Your task to perform on an android device: Go to sound settings Image 0: 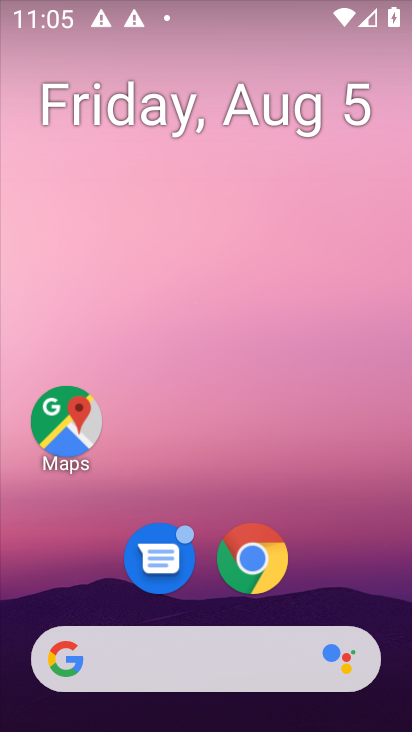
Step 0: press home button
Your task to perform on an android device: Go to sound settings Image 1: 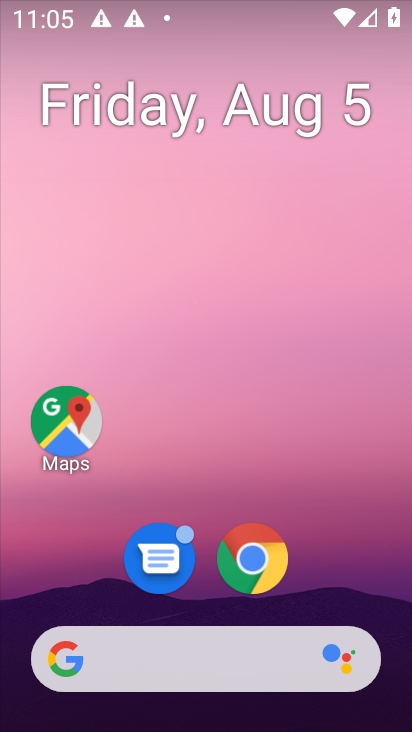
Step 1: drag from (334, 572) to (401, 184)
Your task to perform on an android device: Go to sound settings Image 2: 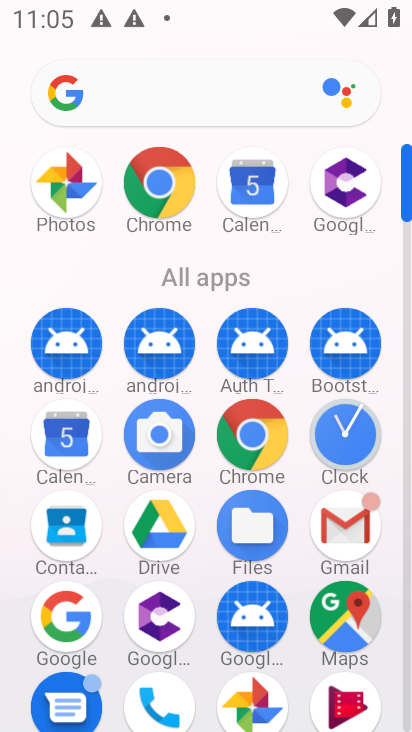
Step 2: drag from (396, 489) to (397, 342)
Your task to perform on an android device: Go to sound settings Image 3: 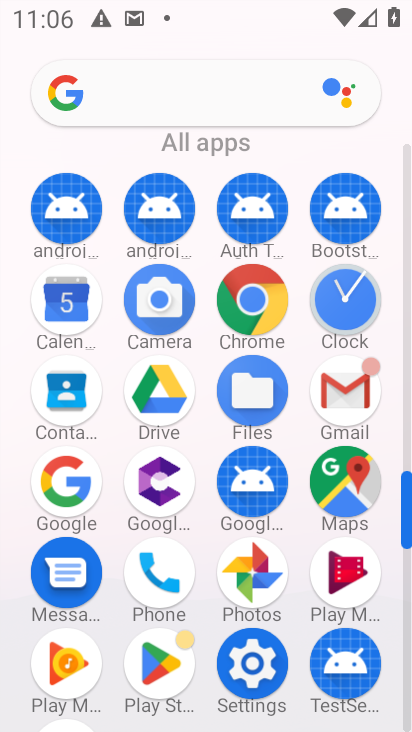
Step 3: drag from (390, 537) to (407, 381)
Your task to perform on an android device: Go to sound settings Image 4: 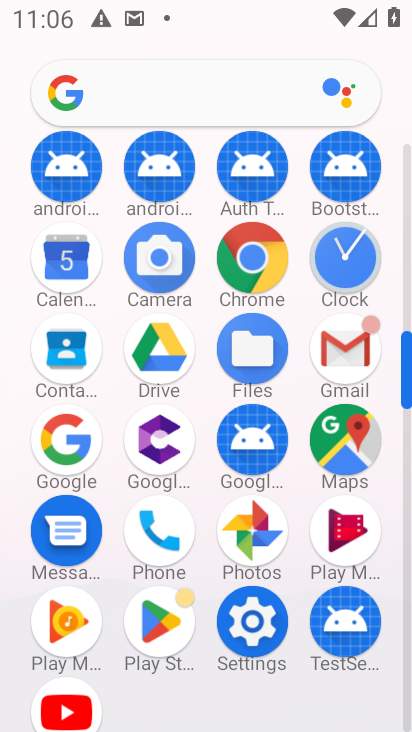
Step 4: click (257, 614)
Your task to perform on an android device: Go to sound settings Image 5: 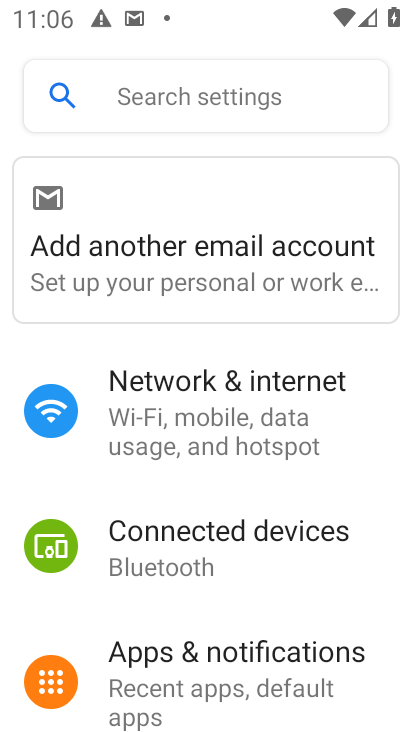
Step 5: drag from (363, 574) to (375, 464)
Your task to perform on an android device: Go to sound settings Image 6: 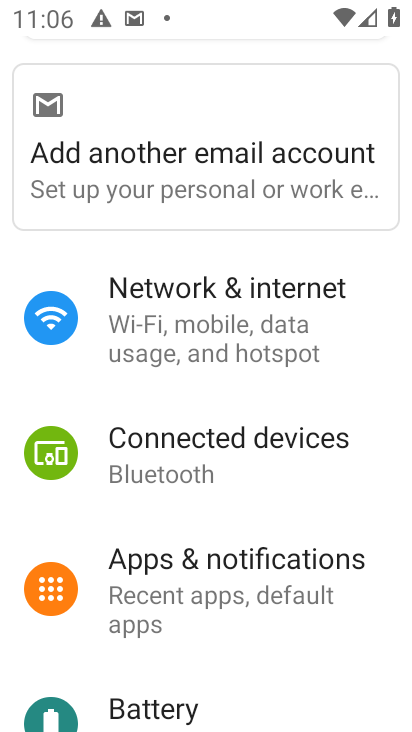
Step 6: drag from (364, 636) to (376, 518)
Your task to perform on an android device: Go to sound settings Image 7: 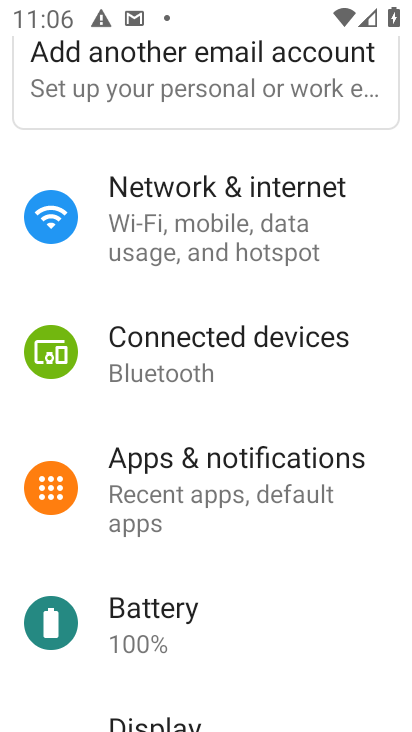
Step 7: drag from (349, 623) to (363, 473)
Your task to perform on an android device: Go to sound settings Image 8: 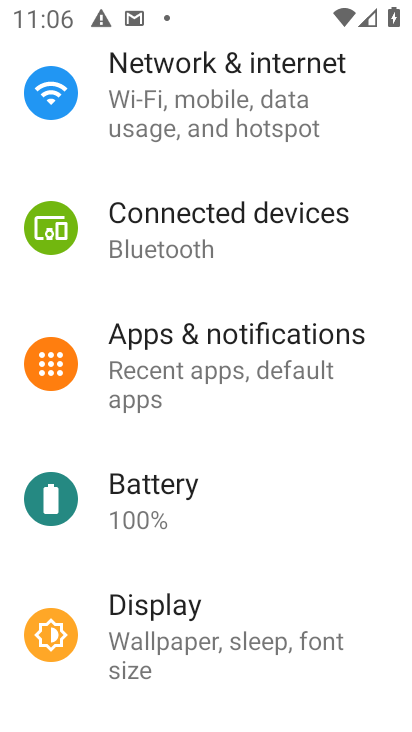
Step 8: drag from (348, 619) to (354, 473)
Your task to perform on an android device: Go to sound settings Image 9: 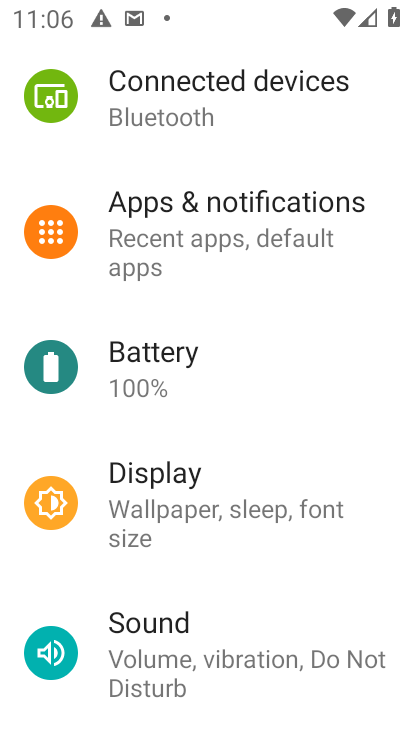
Step 9: drag from (332, 613) to (347, 472)
Your task to perform on an android device: Go to sound settings Image 10: 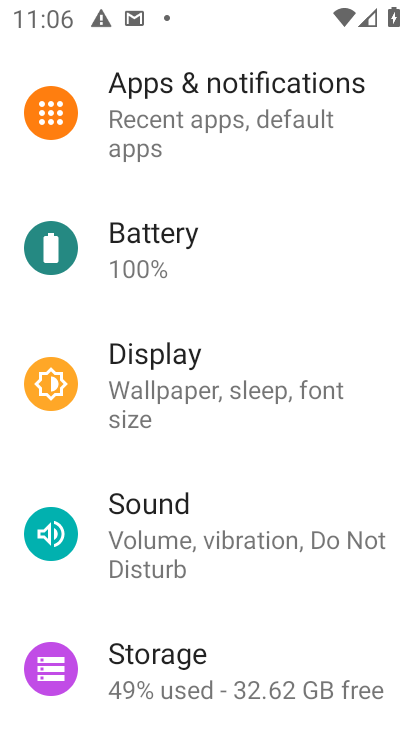
Step 10: drag from (360, 597) to (361, 482)
Your task to perform on an android device: Go to sound settings Image 11: 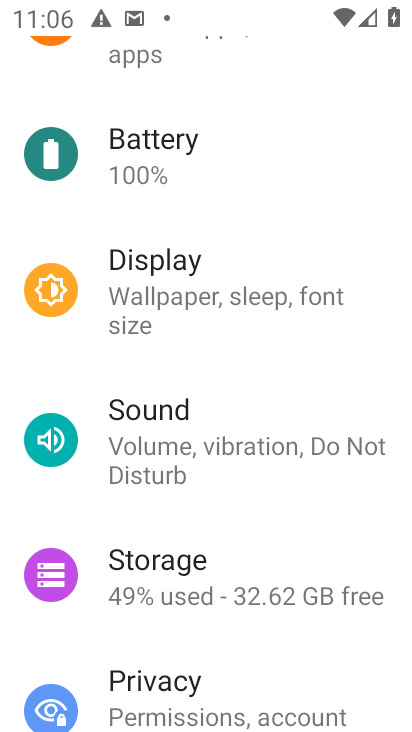
Step 11: click (338, 439)
Your task to perform on an android device: Go to sound settings Image 12: 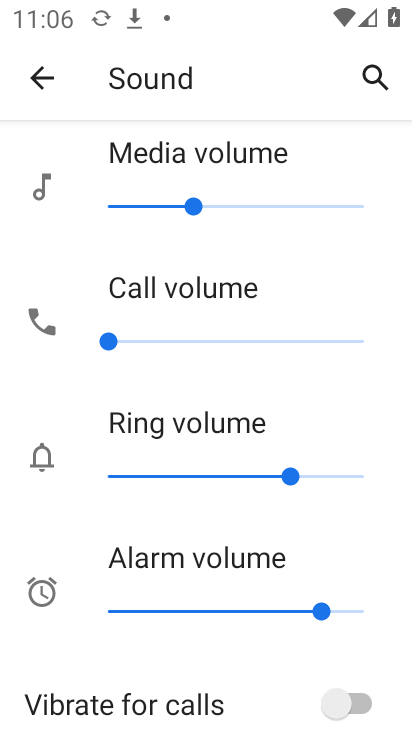
Step 12: task complete